Your task to perform on an android device: Open the web browser Image 0: 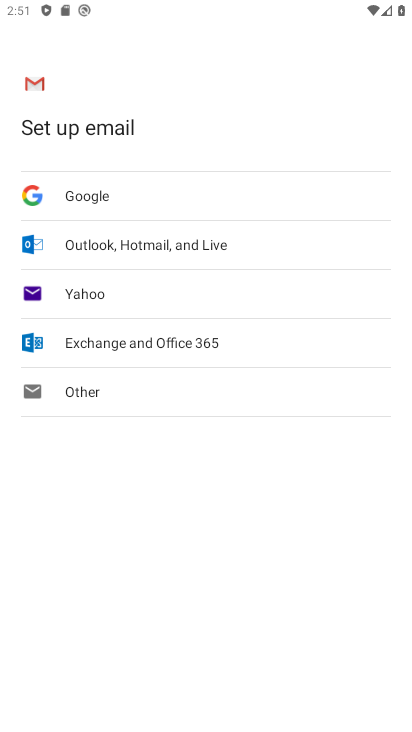
Step 0: press back button
Your task to perform on an android device: Open the web browser Image 1: 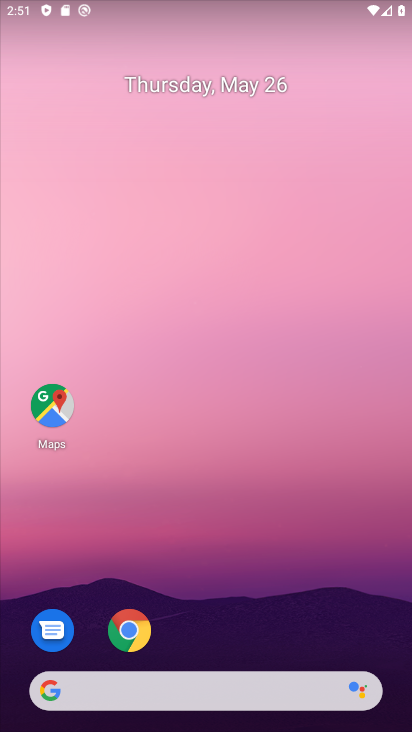
Step 1: click (129, 629)
Your task to perform on an android device: Open the web browser Image 2: 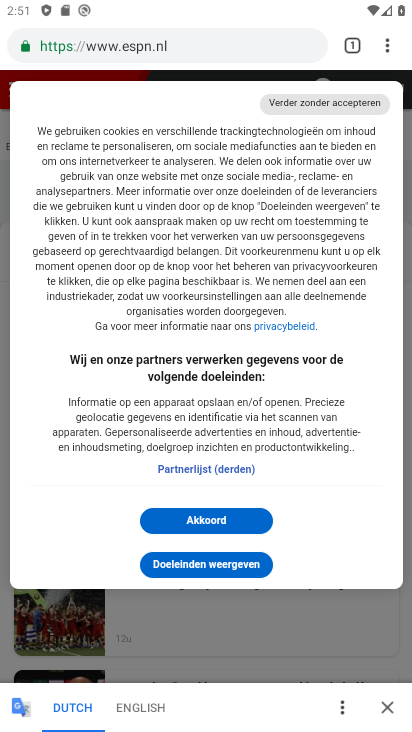
Step 2: task complete